Your task to perform on an android device: Open Google Chrome Image 0: 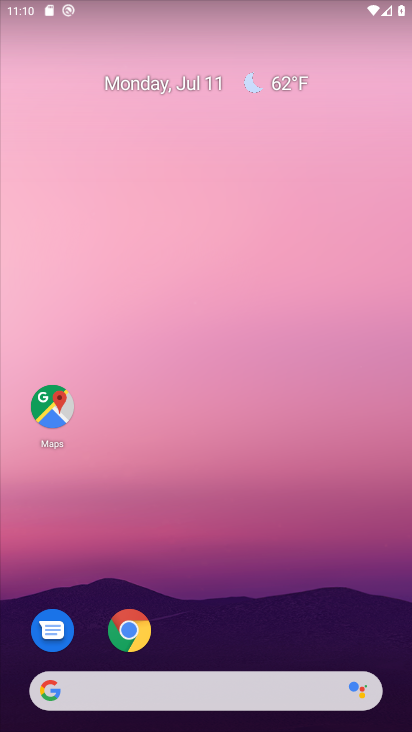
Step 0: click (141, 625)
Your task to perform on an android device: Open Google Chrome Image 1: 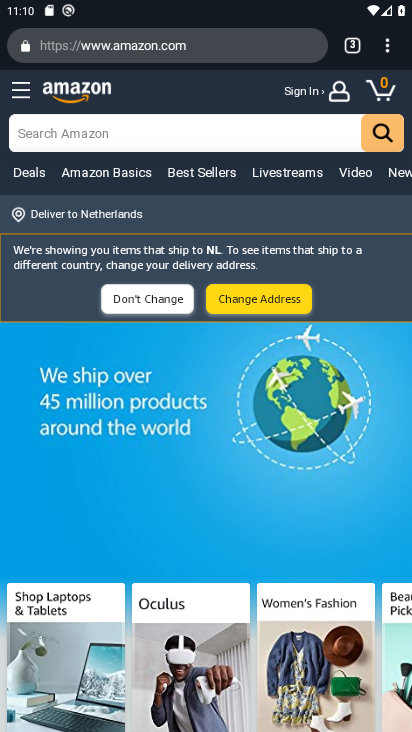
Step 1: task complete